Your task to perform on an android device: Open Android settings Image 0: 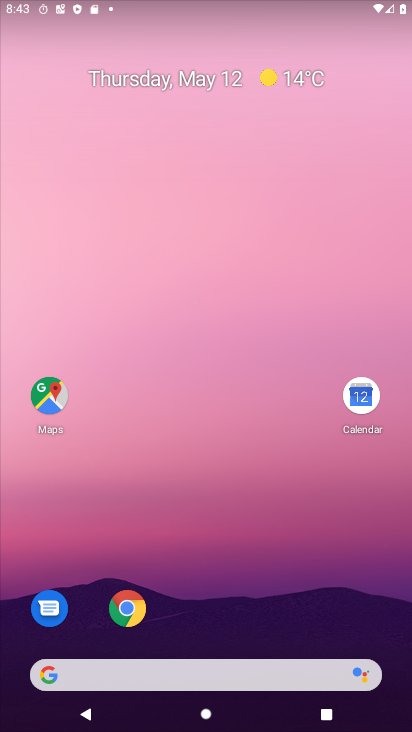
Step 0: drag from (163, 499) to (176, 102)
Your task to perform on an android device: Open Android settings Image 1: 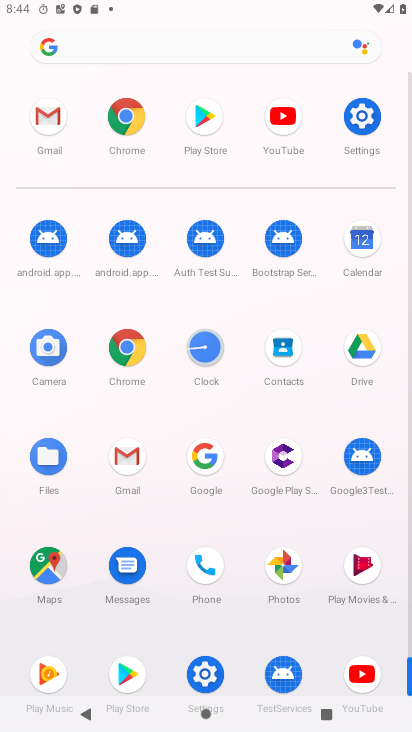
Step 1: click (373, 120)
Your task to perform on an android device: Open Android settings Image 2: 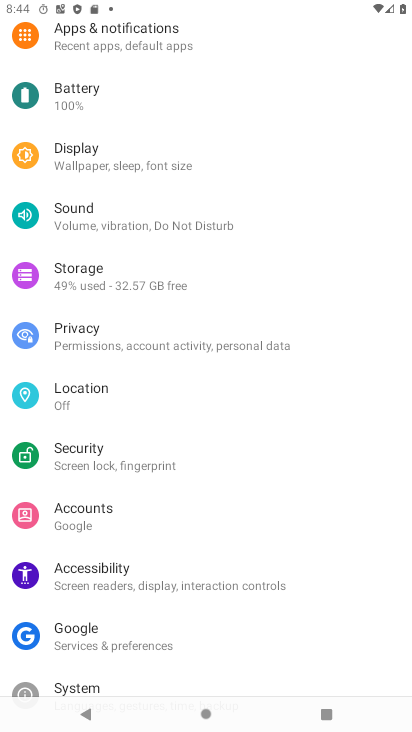
Step 2: press home button
Your task to perform on an android device: Open Android settings Image 3: 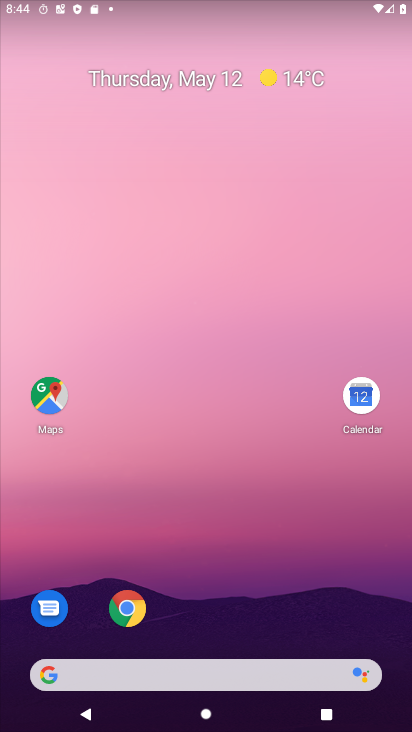
Step 3: drag from (237, 584) to (290, 93)
Your task to perform on an android device: Open Android settings Image 4: 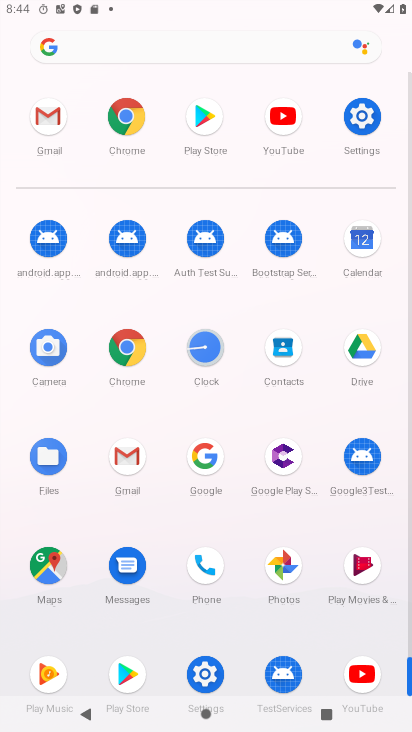
Step 4: click (365, 115)
Your task to perform on an android device: Open Android settings Image 5: 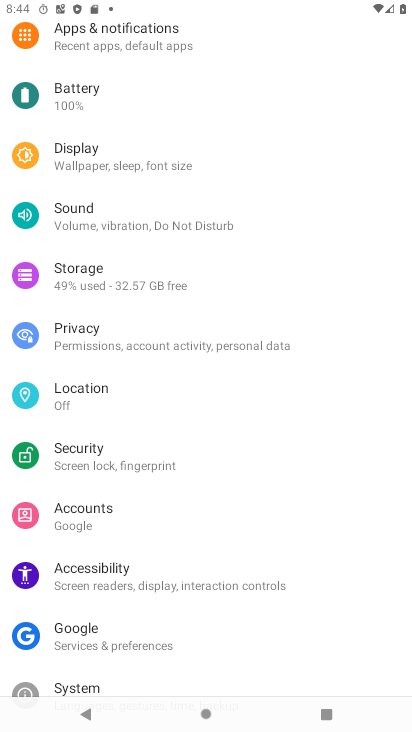
Step 5: task complete